Your task to perform on an android device: choose inbox layout in the gmail app Image 0: 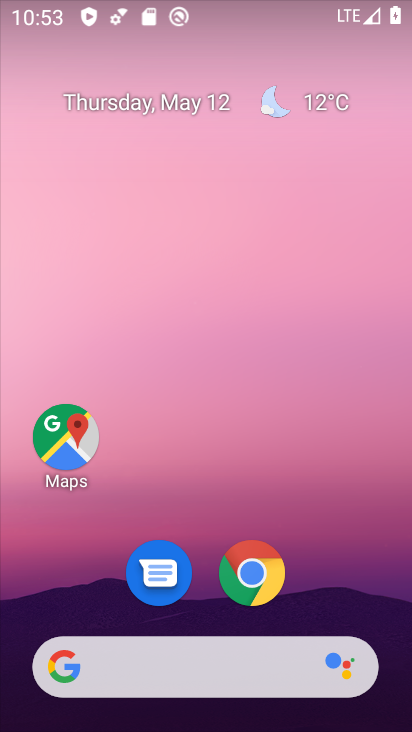
Step 0: drag from (195, 715) to (203, 109)
Your task to perform on an android device: choose inbox layout in the gmail app Image 1: 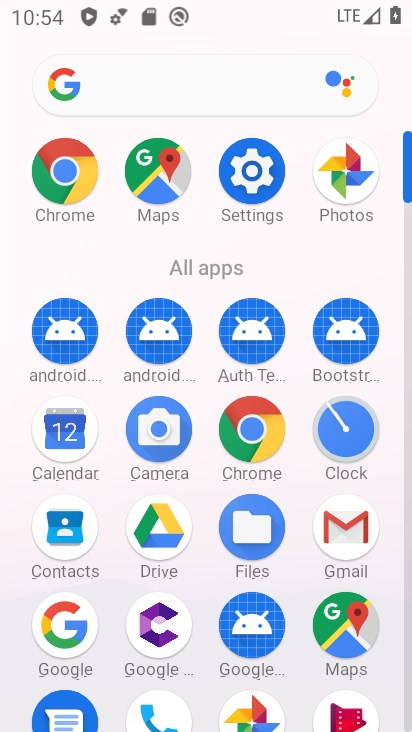
Step 1: click (344, 540)
Your task to perform on an android device: choose inbox layout in the gmail app Image 2: 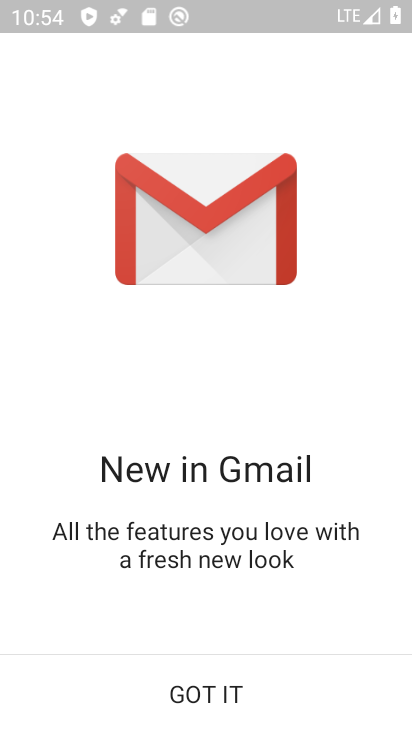
Step 2: click (222, 675)
Your task to perform on an android device: choose inbox layout in the gmail app Image 3: 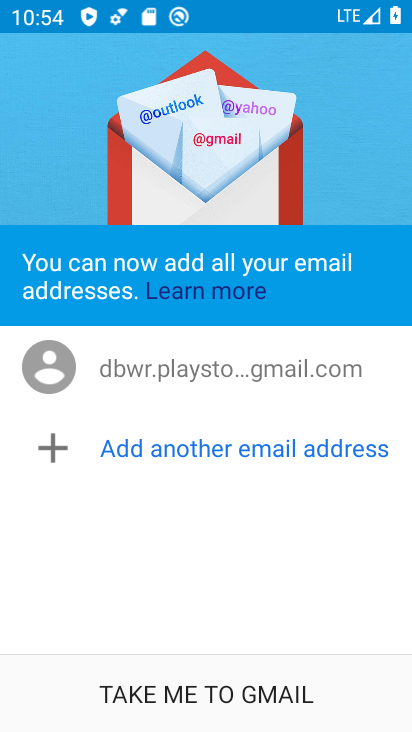
Step 3: click (222, 675)
Your task to perform on an android device: choose inbox layout in the gmail app Image 4: 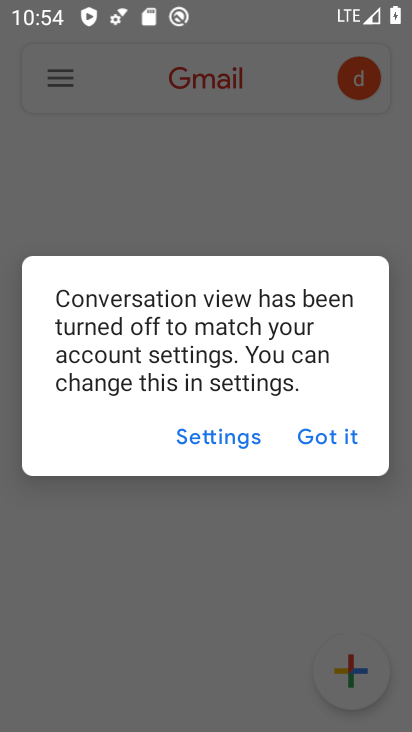
Step 4: click (361, 444)
Your task to perform on an android device: choose inbox layout in the gmail app Image 5: 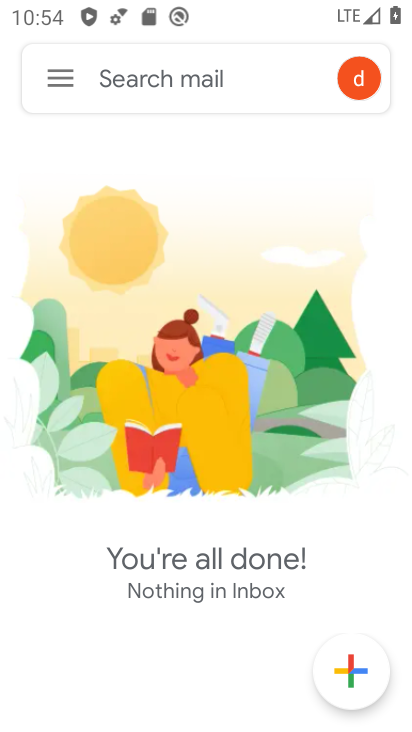
Step 5: click (68, 83)
Your task to perform on an android device: choose inbox layout in the gmail app Image 6: 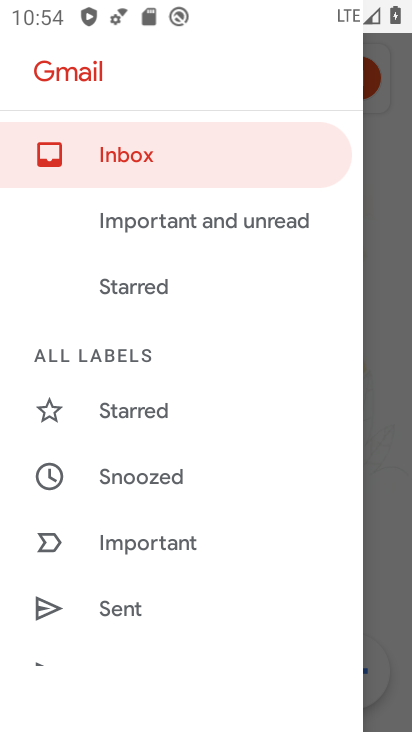
Step 6: drag from (70, 596) to (140, 133)
Your task to perform on an android device: choose inbox layout in the gmail app Image 7: 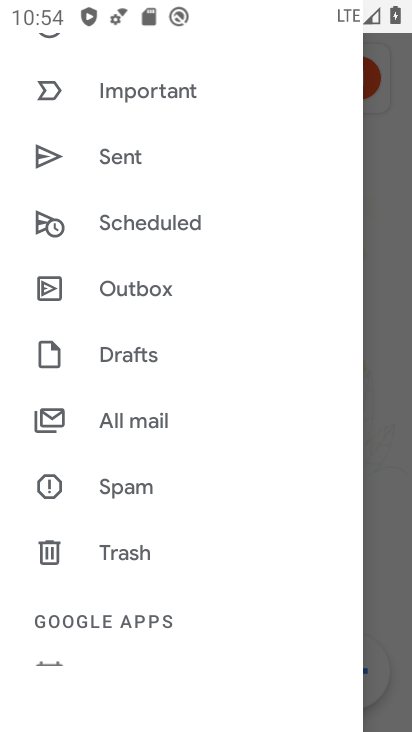
Step 7: drag from (169, 599) to (219, 197)
Your task to perform on an android device: choose inbox layout in the gmail app Image 8: 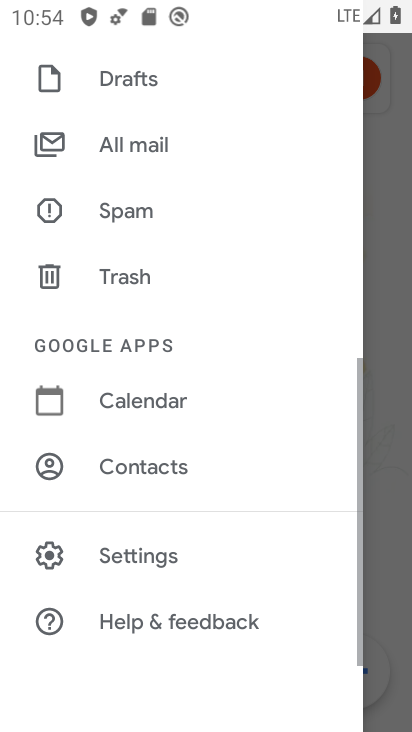
Step 8: click (124, 566)
Your task to perform on an android device: choose inbox layout in the gmail app Image 9: 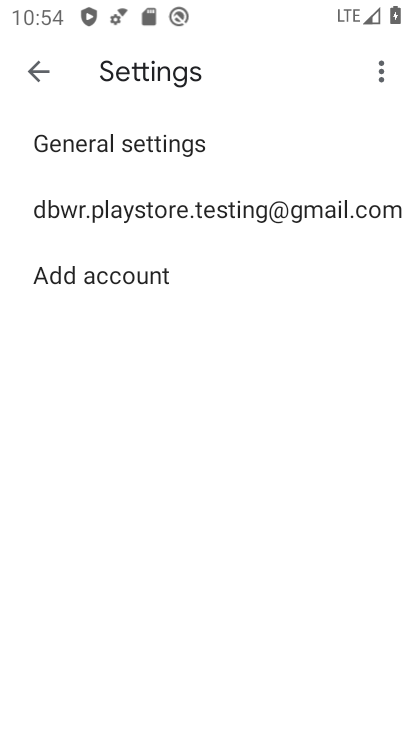
Step 9: click (138, 211)
Your task to perform on an android device: choose inbox layout in the gmail app Image 10: 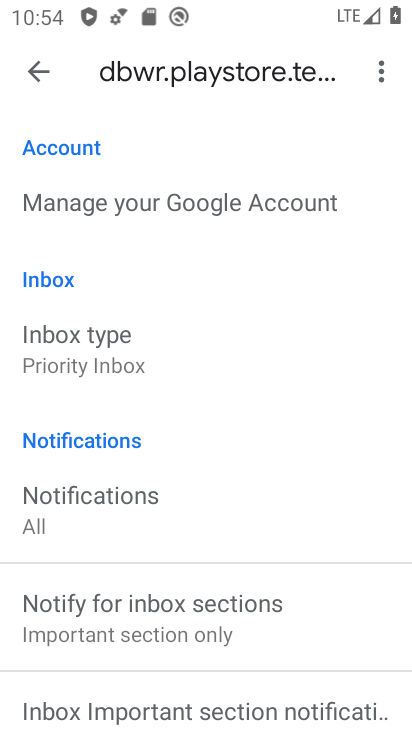
Step 10: drag from (236, 668) to (281, 103)
Your task to perform on an android device: choose inbox layout in the gmail app Image 11: 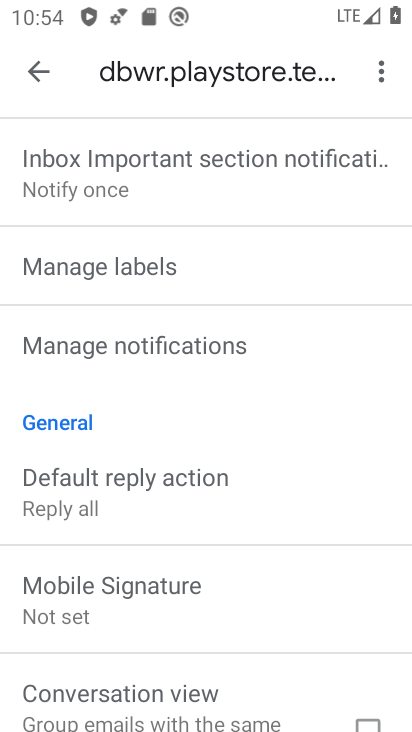
Step 11: drag from (265, 202) to (167, 728)
Your task to perform on an android device: choose inbox layout in the gmail app Image 12: 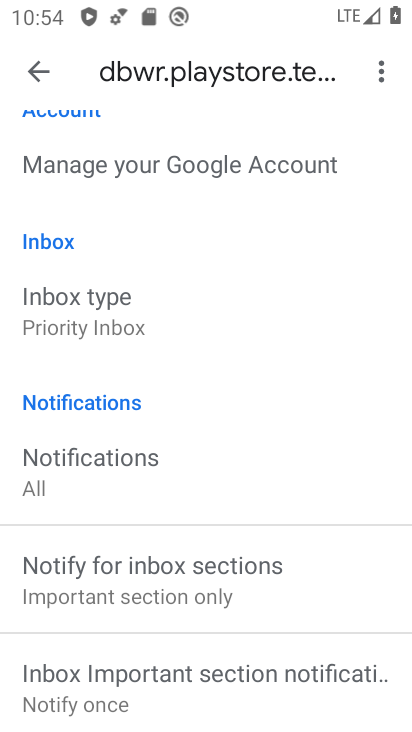
Step 12: click (99, 299)
Your task to perform on an android device: choose inbox layout in the gmail app Image 13: 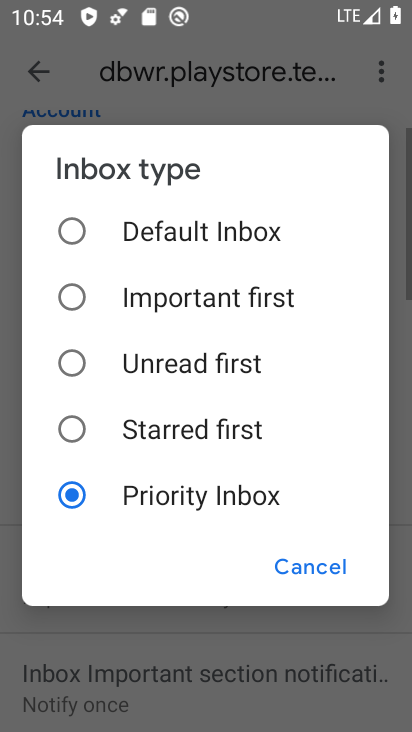
Step 13: click (205, 231)
Your task to perform on an android device: choose inbox layout in the gmail app Image 14: 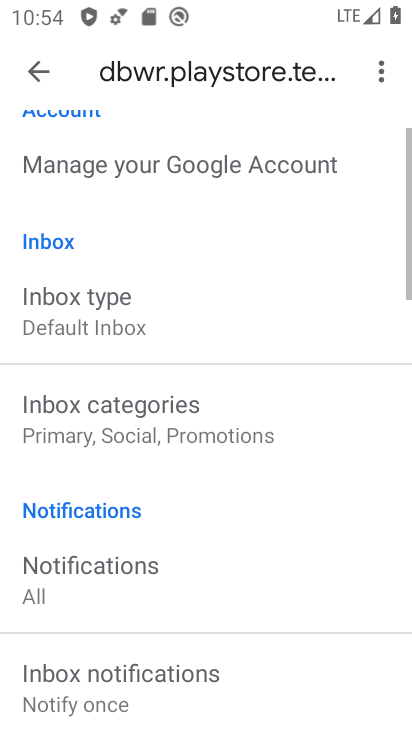
Step 14: task complete